Your task to perform on an android device: Open the phone app and click the voicemail tab. Image 0: 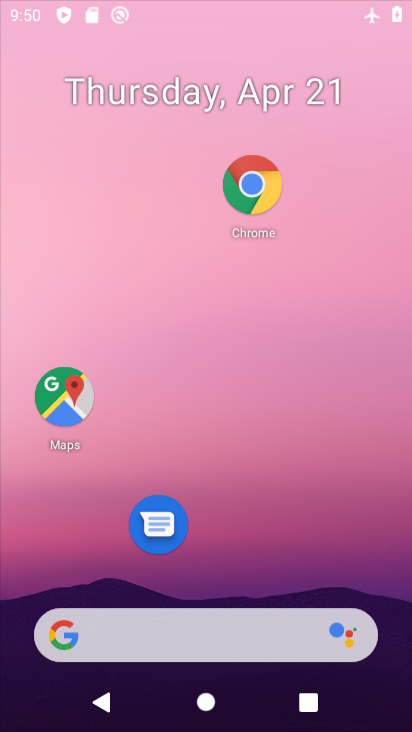
Step 0: drag from (251, 606) to (274, 189)
Your task to perform on an android device: Open the phone app and click the voicemail tab. Image 1: 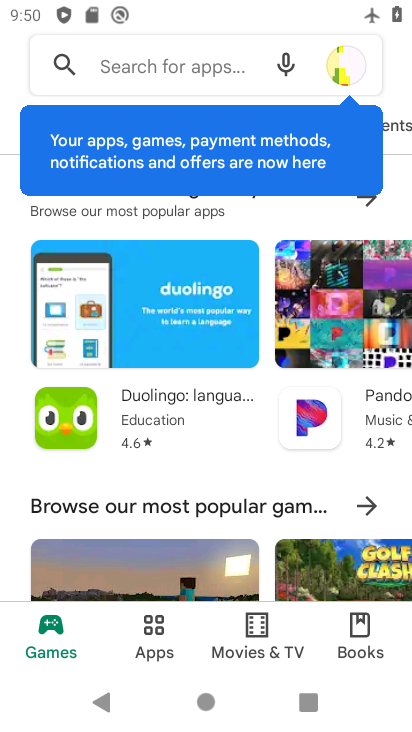
Step 1: press home button
Your task to perform on an android device: Open the phone app and click the voicemail tab. Image 2: 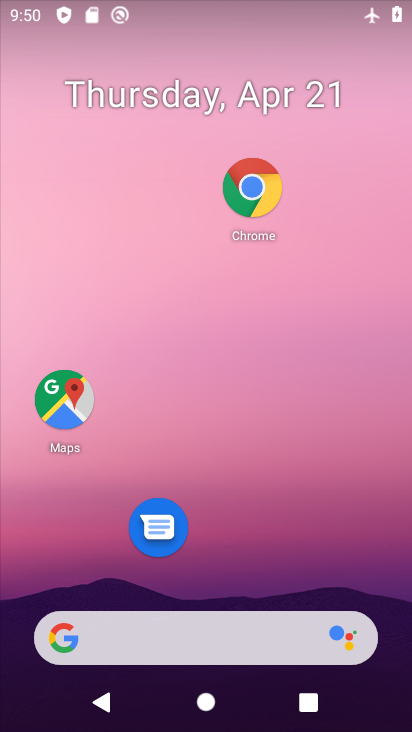
Step 2: drag from (247, 437) to (293, 1)
Your task to perform on an android device: Open the phone app and click the voicemail tab. Image 3: 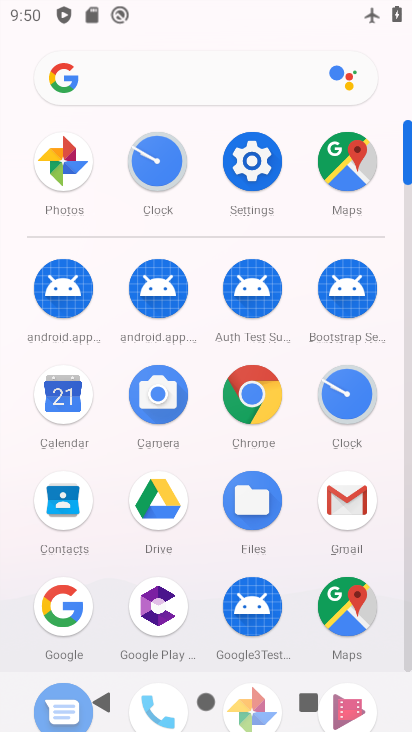
Step 3: drag from (246, 379) to (263, 173)
Your task to perform on an android device: Open the phone app and click the voicemail tab. Image 4: 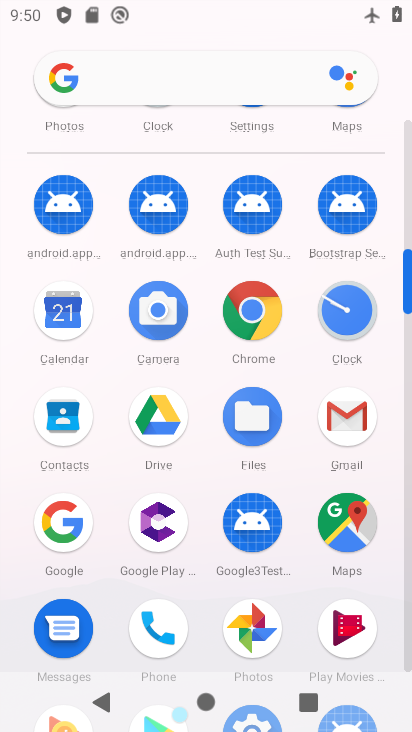
Step 4: drag from (287, 560) to (325, 187)
Your task to perform on an android device: Open the phone app and click the voicemail tab. Image 5: 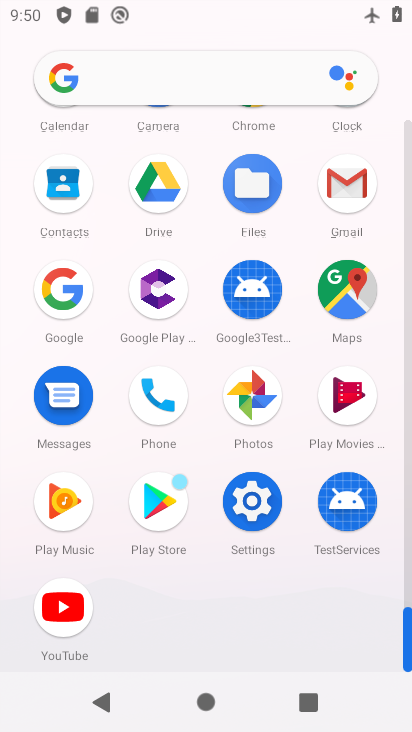
Step 5: click (172, 400)
Your task to perform on an android device: Open the phone app and click the voicemail tab. Image 6: 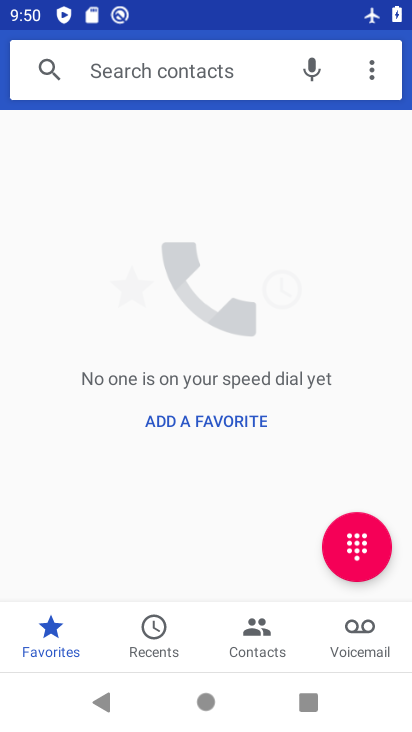
Step 6: click (357, 643)
Your task to perform on an android device: Open the phone app and click the voicemail tab. Image 7: 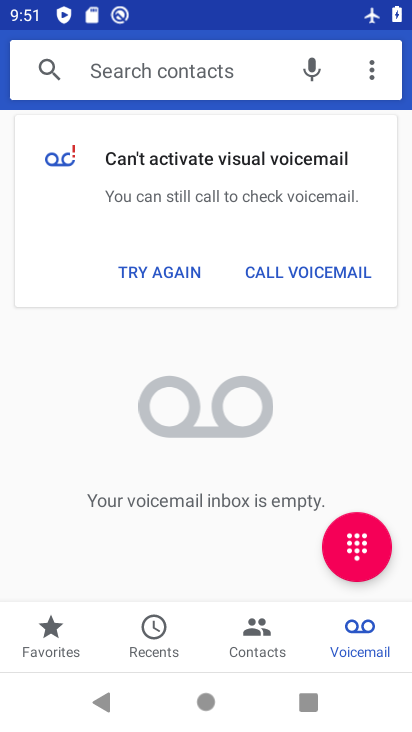
Step 7: task complete